Your task to perform on an android device: turn off data saver in the chrome app Image 0: 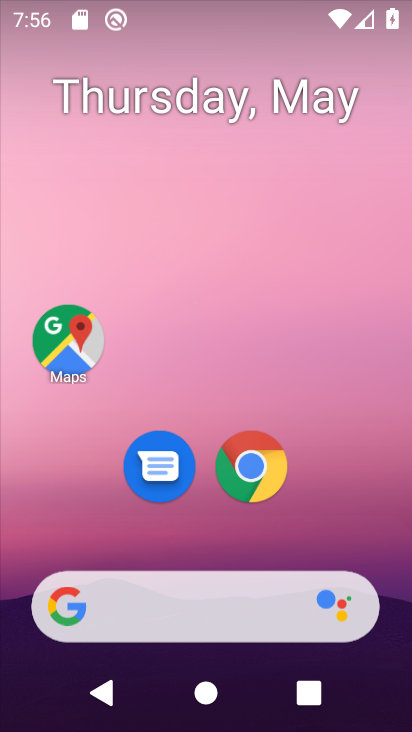
Step 0: click (254, 488)
Your task to perform on an android device: turn off data saver in the chrome app Image 1: 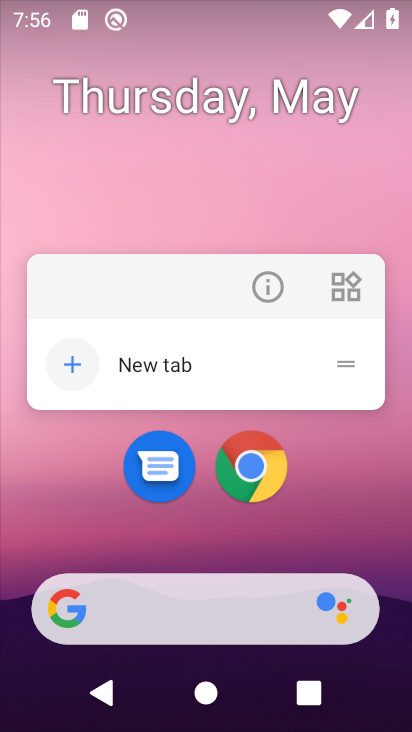
Step 1: click (254, 463)
Your task to perform on an android device: turn off data saver in the chrome app Image 2: 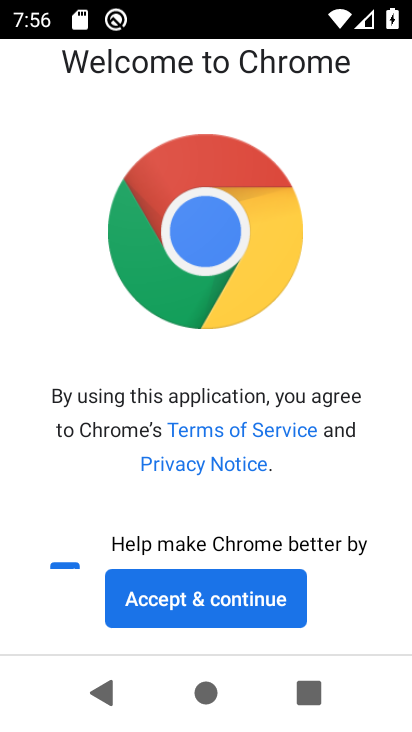
Step 2: click (226, 592)
Your task to perform on an android device: turn off data saver in the chrome app Image 3: 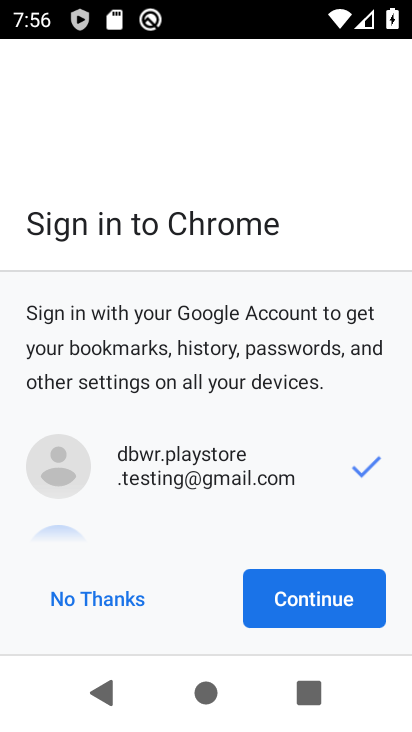
Step 3: click (322, 616)
Your task to perform on an android device: turn off data saver in the chrome app Image 4: 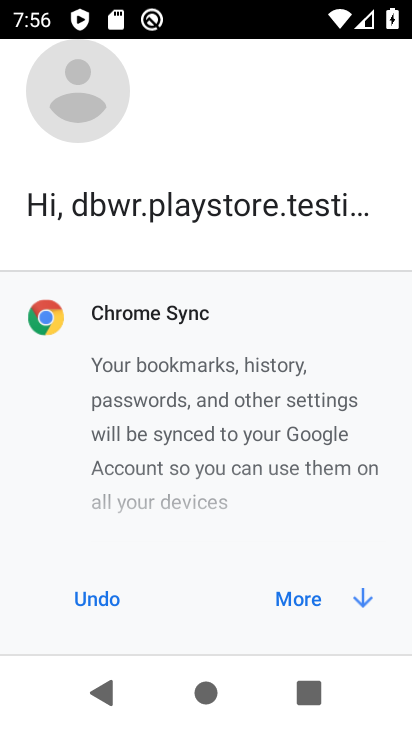
Step 4: click (322, 593)
Your task to perform on an android device: turn off data saver in the chrome app Image 5: 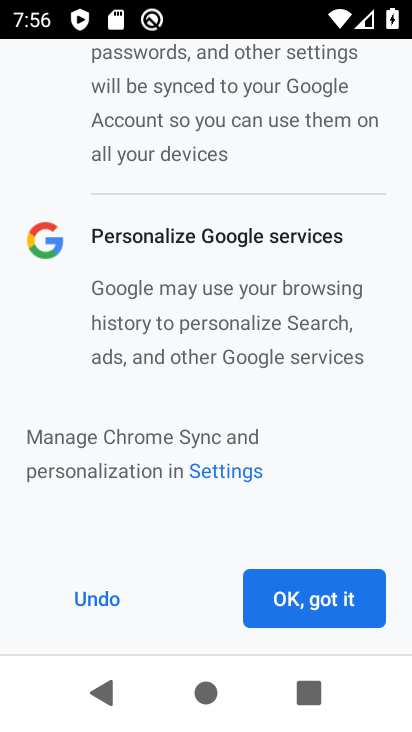
Step 5: click (322, 593)
Your task to perform on an android device: turn off data saver in the chrome app Image 6: 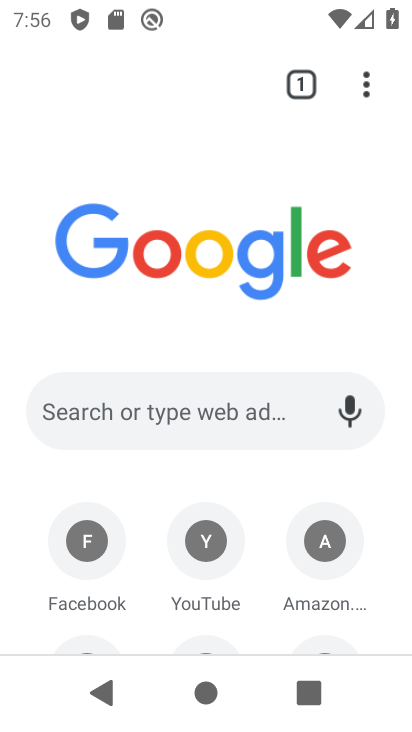
Step 6: click (368, 84)
Your task to perform on an android device: turn off data saver in the chrome app Image 7: 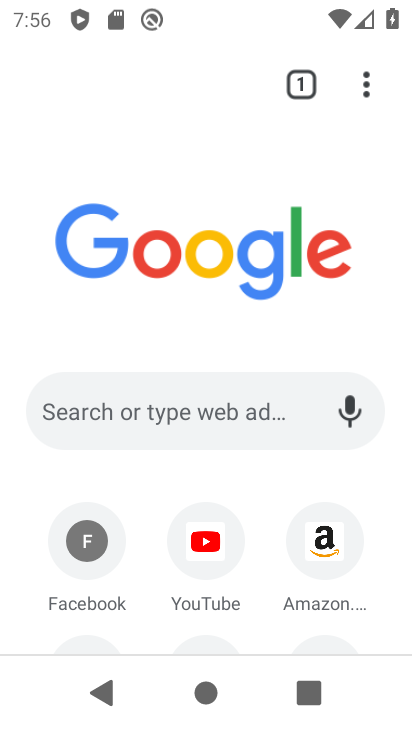
Step 7: click (368, 87)
Your task to perform on an android device: turn off data saver in the chrome app Image 8: 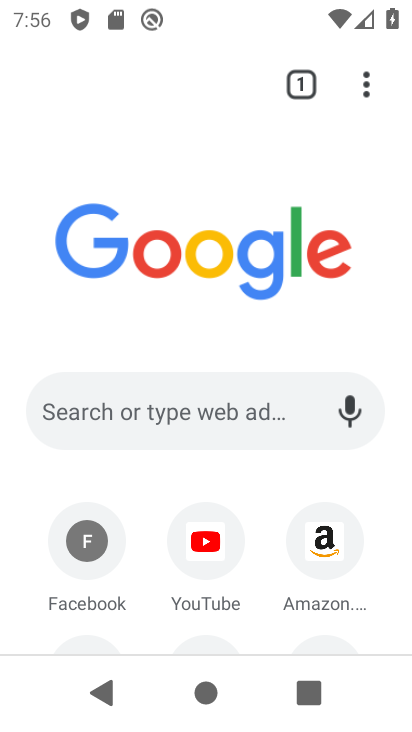
Step 8: drag from (358, 86) to (116, 532)
Your task to perform on an android device: turn off data saver in the chrome app Image 9: 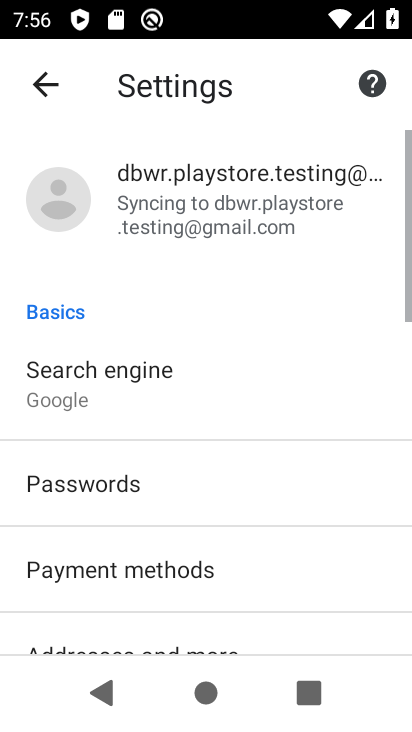
Step 9: drag from (113, 529) to (132, 25)
Your task to perform on an android device: turn off data saver in the chrome app Image 10: 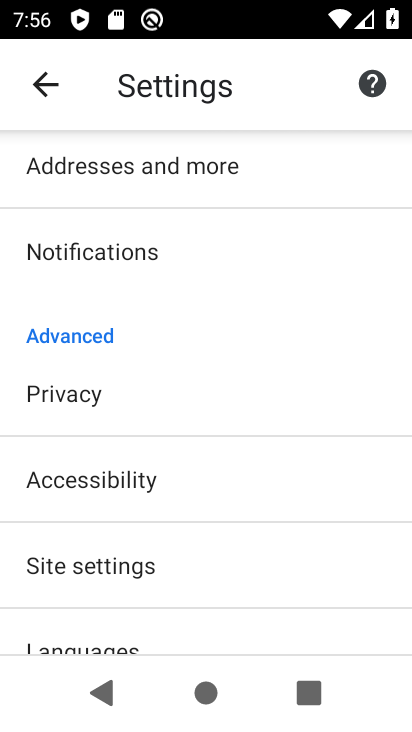
Step 10: drag from (195, 580) to (183, 126)
Your task to perform on an android device: turn off data saver in the chrome app Image 11: 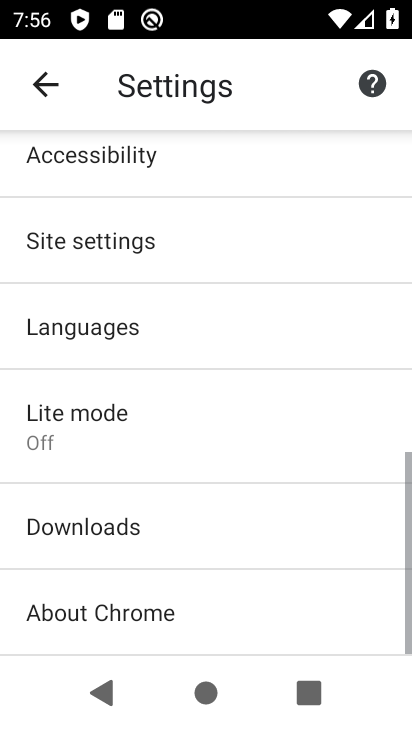
Step 11: click (154, 416)
Your task to perform on an android device: turn off data saver in the chrome app Image 12: 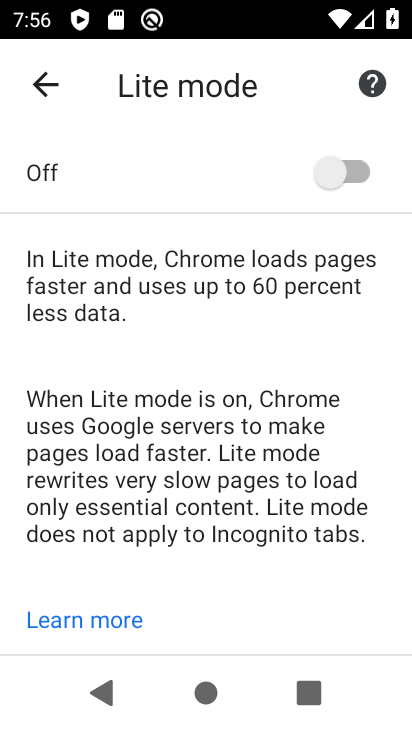
Step 12: task complete